Your task to perform on an android device: move an email to a new category in the gmail app Image 0: 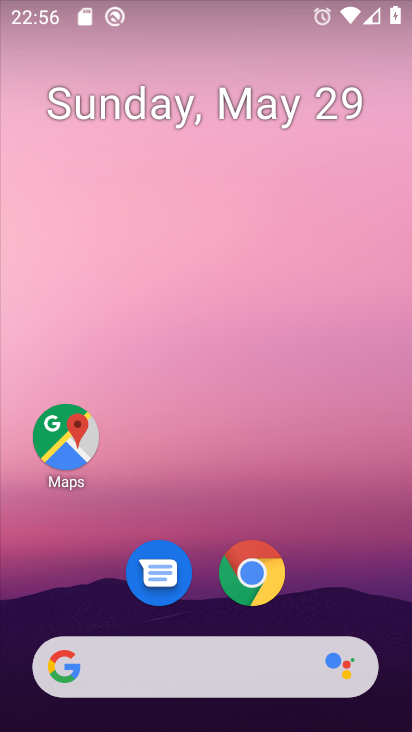
Step 0: drag from (248, 471) to (244, 30)
Your task to perform on an android device: move an email to a new category in the gmail app Image 1: 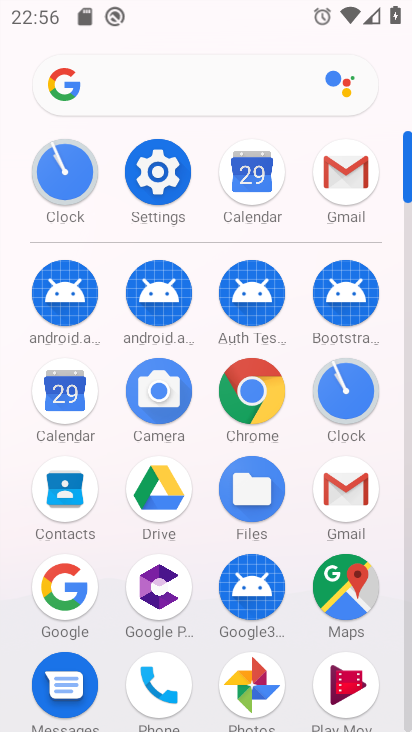
Step 1: click (349, 180)
Your task to perform on an android device: move an email to a new category in the gmail app Image 2: 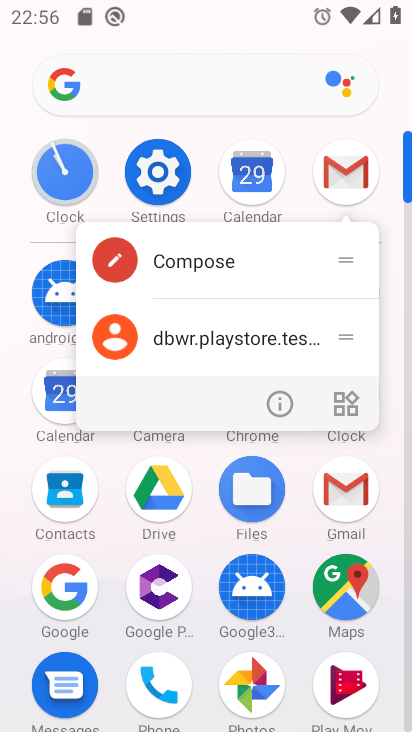
Step 2: click (347, 177)
Your task to perform on an android device: move an email to a new category in the gmail app Image 3: 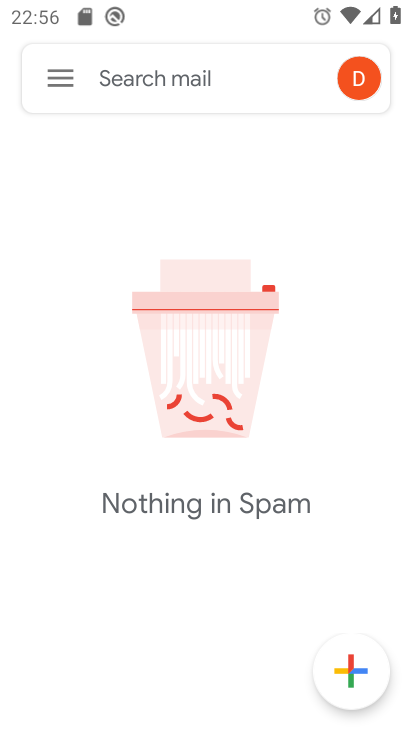
Step 3: click (61, 75)
Your task to perform on an android device: move an email to a new category in the gmail app Image 4: 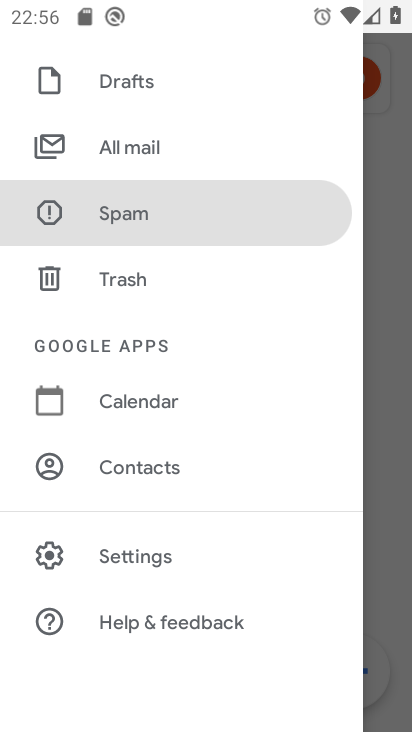
Step 4: click (111, 145)
Your task to perform on an android device: move an email to a new category in the gmail app Image 5: 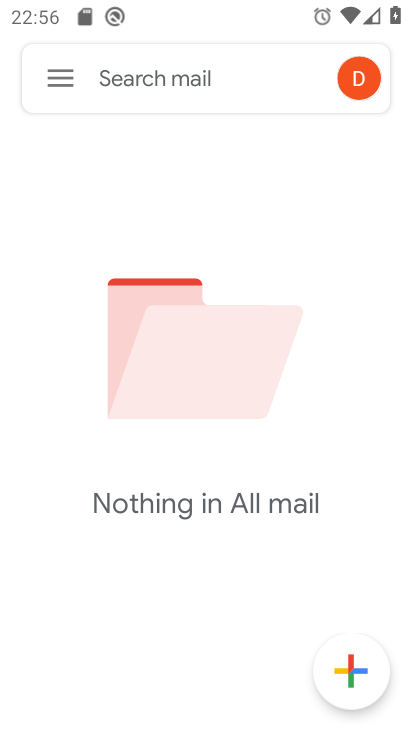
Step 5: task complete